Your task to perform on an android device: Check the news Image 0: 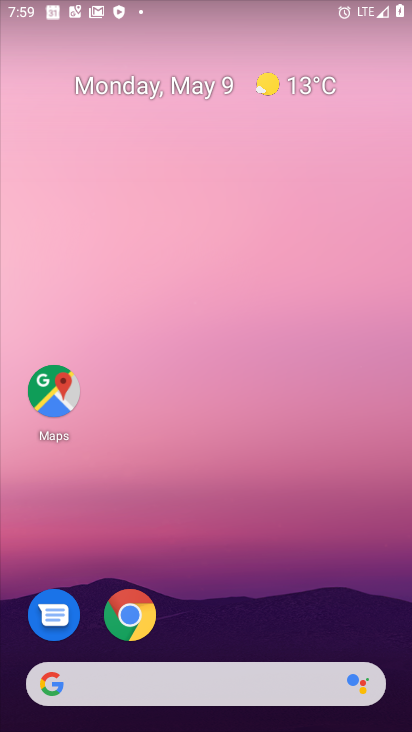
Step 0: click (173, 692)
Your task to perform on an android device: Check the news Image 1: 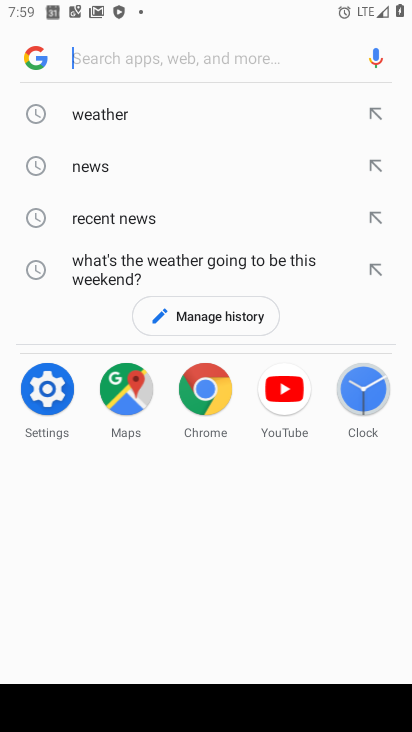
Step 1: click (32, 50)
Your task to perform on an android device: Check the news Image 2: 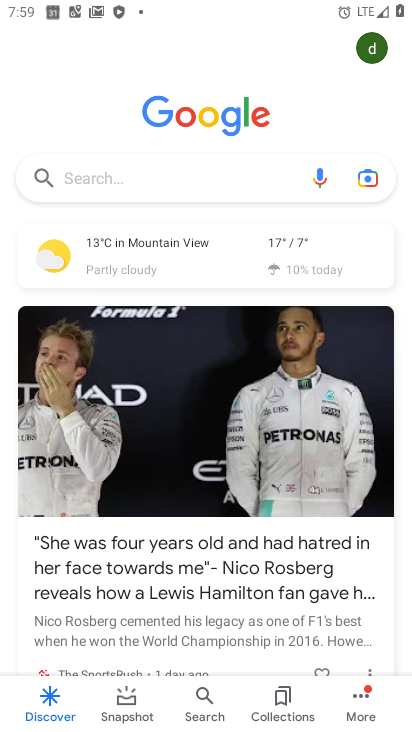
Step 2: task complete